Your task to perform on an android device: Go to notification settings Image 0: 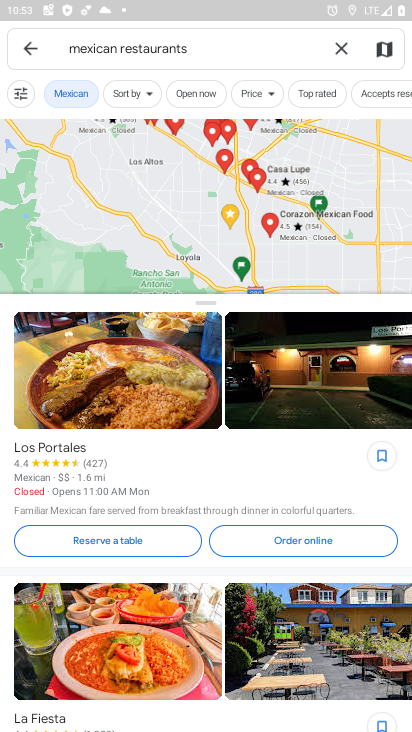
Step 0: press home button
Your task to perform on an android device: Go to notification settings Image 1: 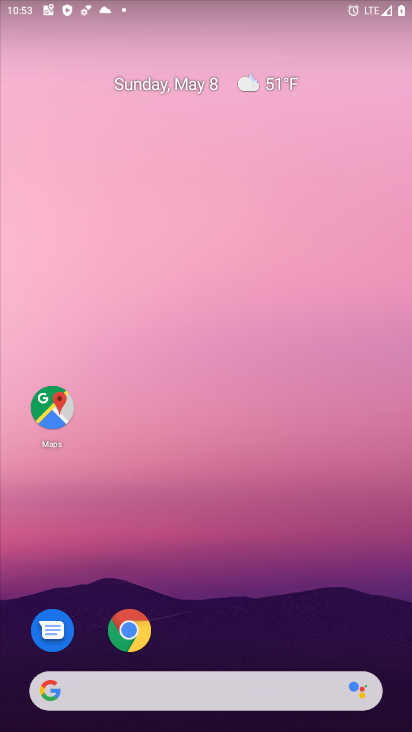
Step 1: drag from (332, 616) to (244, 37)
Your task to perform on an android device: Go to notification settings Image 2: 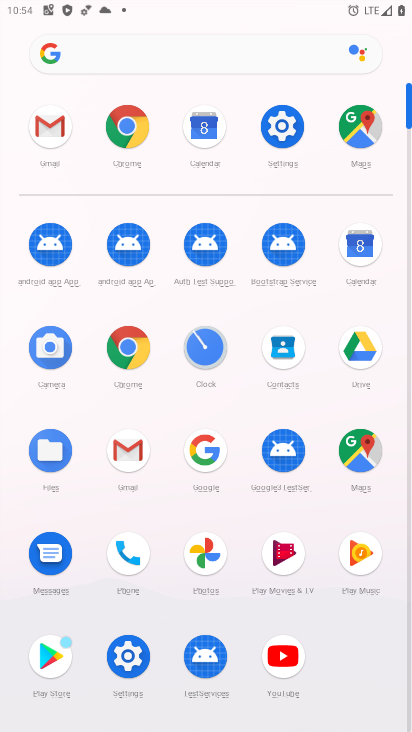
Step 2: click (134, 662)
Your task to perform on an android device: Go to notification settings Image 3: 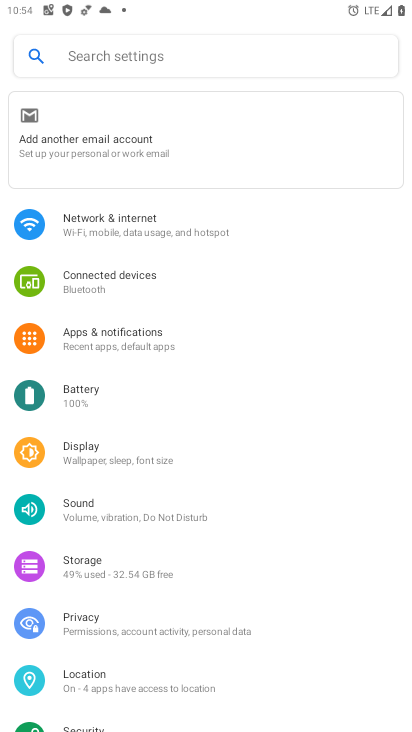
Step 3: click (146, 332)
Your task to perform on an android device: Go to notification settings Image 4: 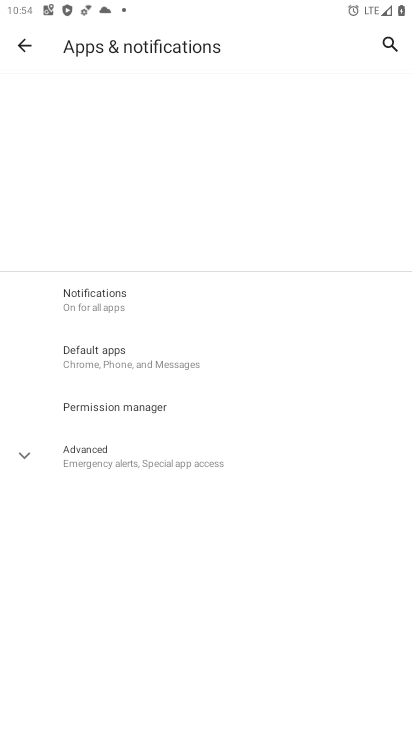
Step 4: click (120, 292)
Your task to perform on an android device: Go to notification settings Image 5: 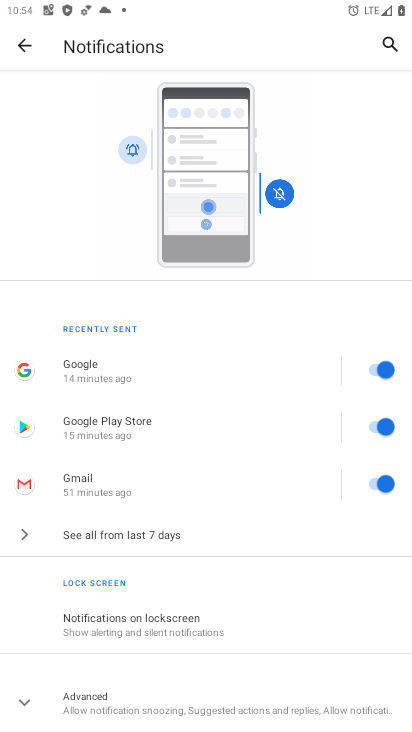
Step 5: task complete